Your task to perform on an android device: open app "Gmail" Image 0: 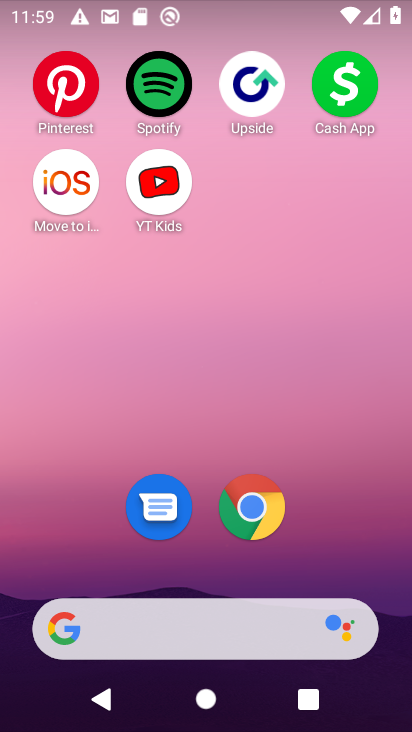
Step 0: drag from (194, 543) to (366, 48)
Your task to perform on an android device: open app "Gmail" Image 1: 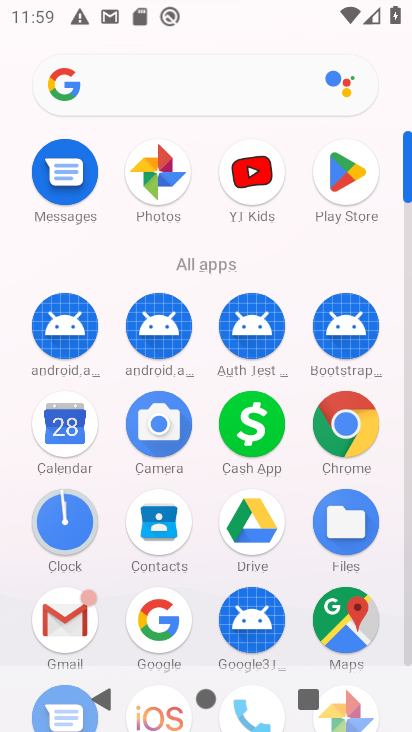
Step 1: drag from (292, 562) to (321, 387)
Your task to perform on an android device: open app "Gmail" Image 2: 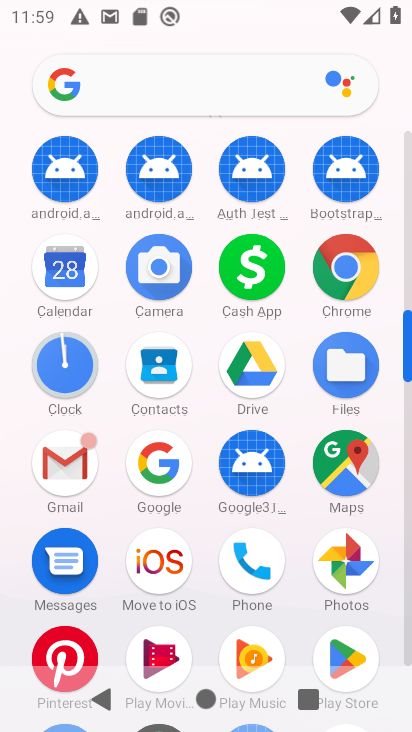
Step 2: click (77, 481)
Your task to perform on an android device: open app "Gmail" Image 3: 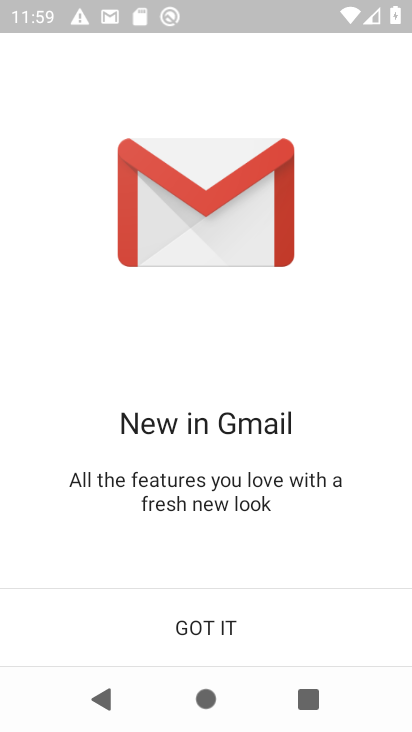
Step 3: click (216, 607)
Your task to perform on an android device: open app "Gmail" Image 4: 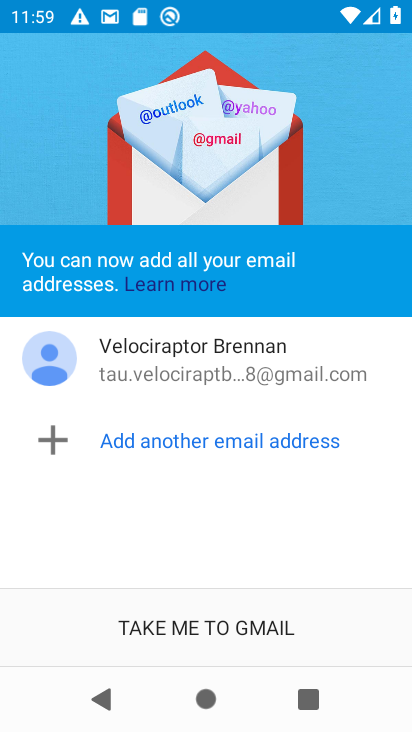
Step 4: click (248, 638)
Your task to perform on an android device: open app "Gmail" Image 5: 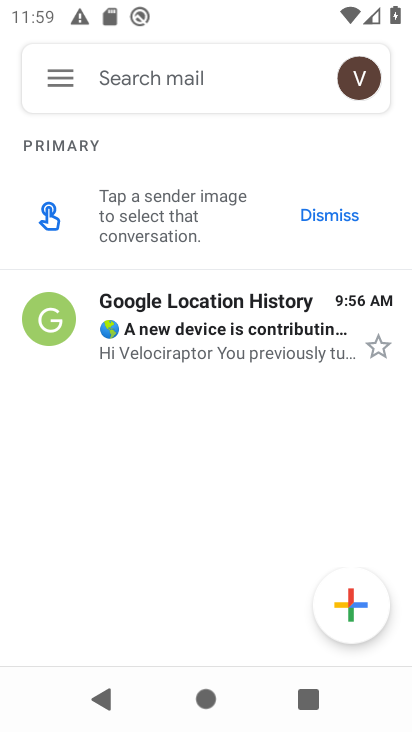
Step 5: task complete